Your task to perform on an android device: read, delete, or share a saved page in the chrome app Image 0: 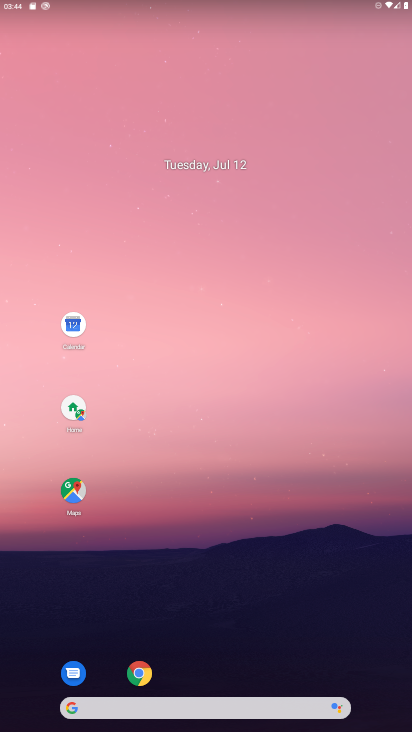
Step 0: drag from (277, 622) to (115, 272)
Your task to perform on an android device: read, delete, or share a saved page in the chrome app Image 1: 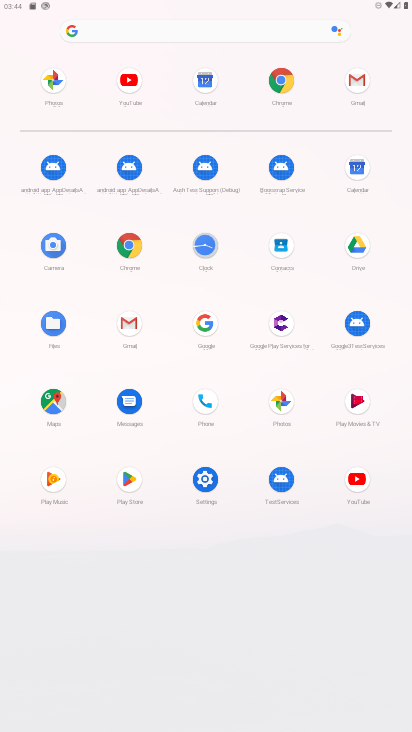
Step 1: click (280, 79)
Your task to perform on an android device: read, delete, or share a saved page in the chrome app Image 2: 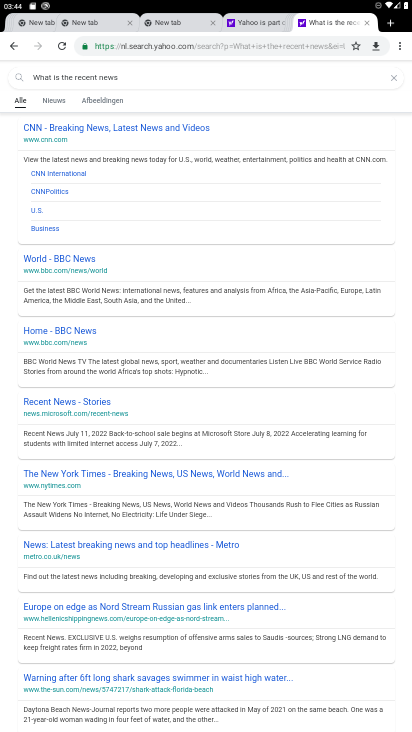
Step 2: click (392, 41)
Your task to perform on an android device: read, delete, or share a saved page in the chrome app Image 3: 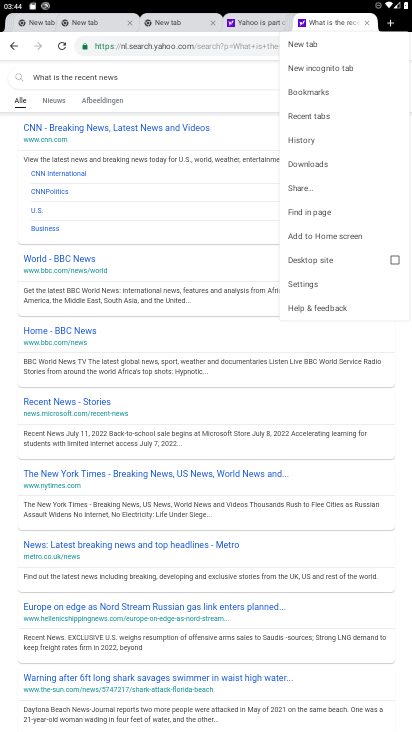
Step 3: click (305, 187)
Your task to perform on an android device: read, delete, or share a saved page in the chrome app Image 4: 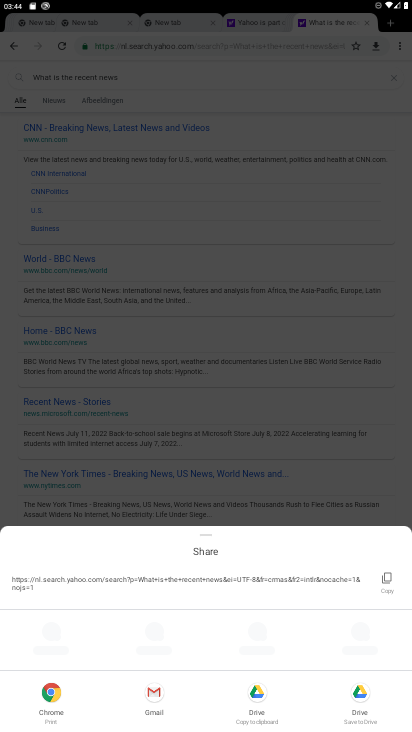
Step 4: click (305, 220)
Your task to perform on an android device: read, delete, or share a saved page in the chrome app Image 5: 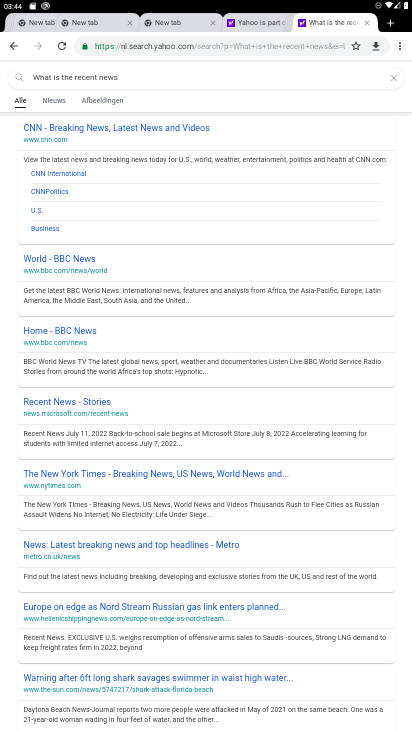
Step 5: task complete